Your task to perform on an android device: Open the map Image 0: 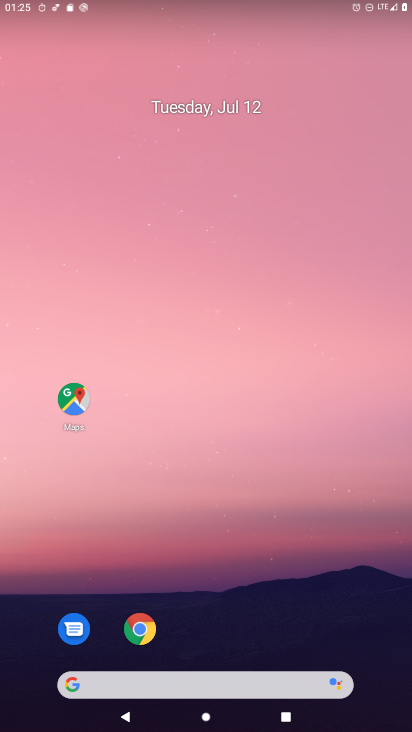
Step 0: click (71, 408)
Your task to perform on an android device: Open the map Image 1: 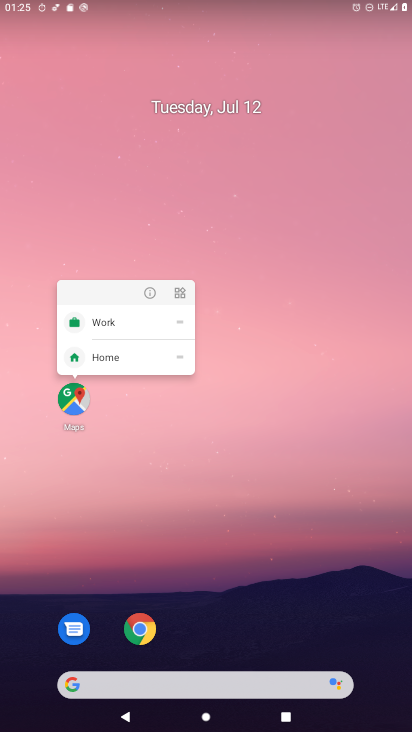
Step 1: click (70, 405)
Your task to perform on an android device: Open the map Image 2: 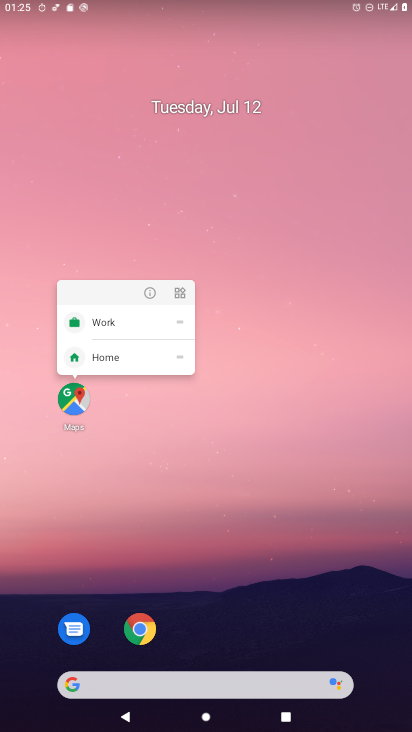
Step 2: click (70, 402)
Your task to perform on an android device: Open the map Image 3: 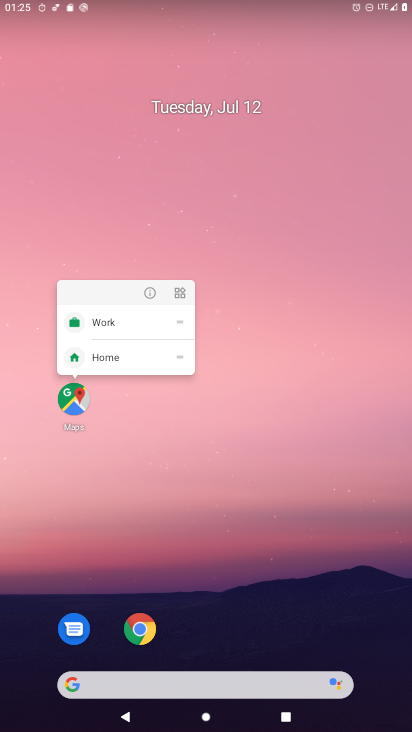
Step 3: task complete